Your task to perform on an android device: Do I have any events this weekend? Image 0: 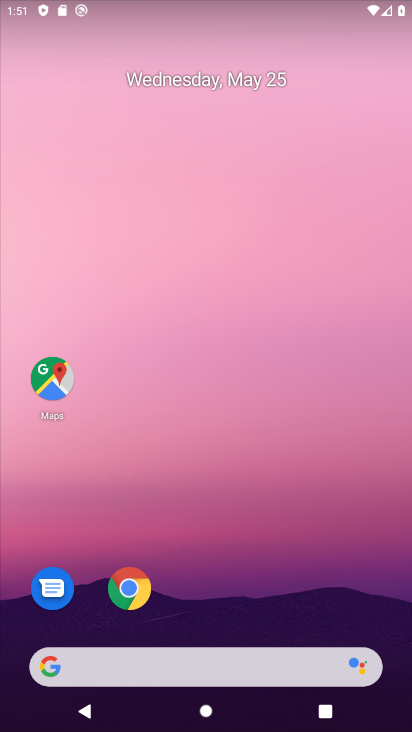
Step 0: drag from (200, 603) to (278, 205)
Your task to perform on an android device: Do I have any events this weekend? Image 1: 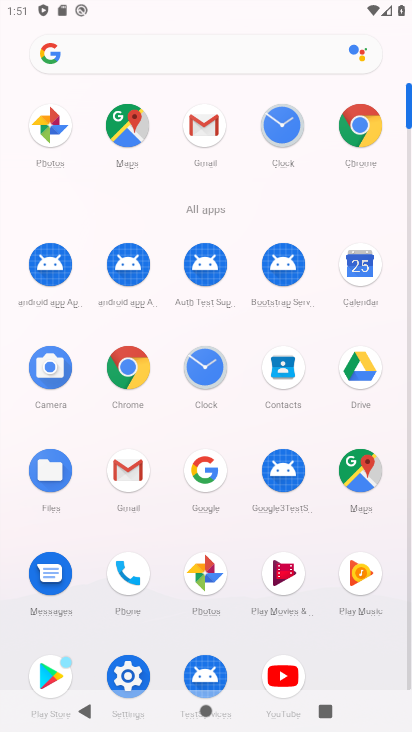
Step 1: click (364, 263)
Your task to perform on an android device: Do I have any events this weekend? Image 2: 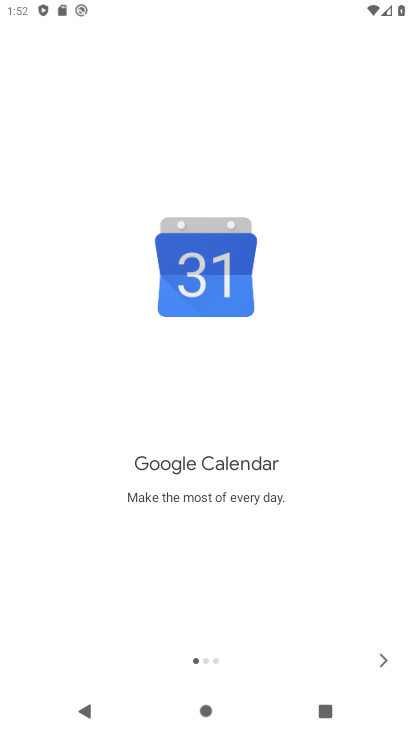
Step 2: click (386, 660)
Your task to perform on an android device: Do I have any events this weekend? Image 3: 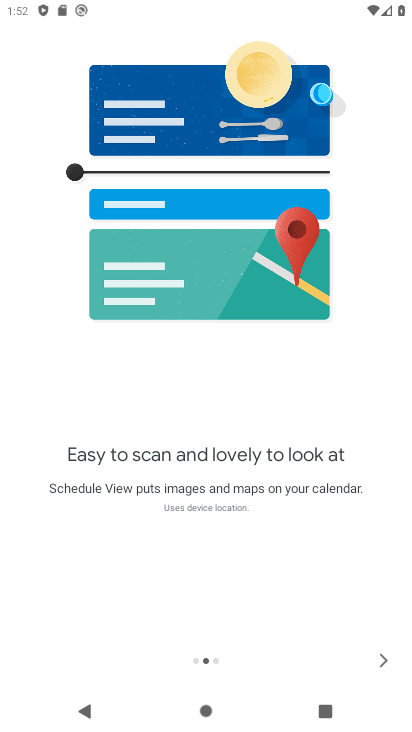
Step 3: click (386, 660)
Your task to perform on an android device: Do I have any events this weekend? Image 4: 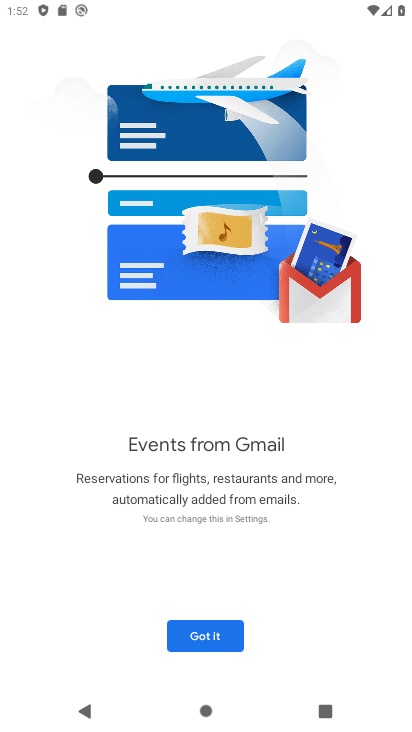
Step 4: click (221, 631)
Your task to perform on an android device: Do I have any events this weekend? Image 5: 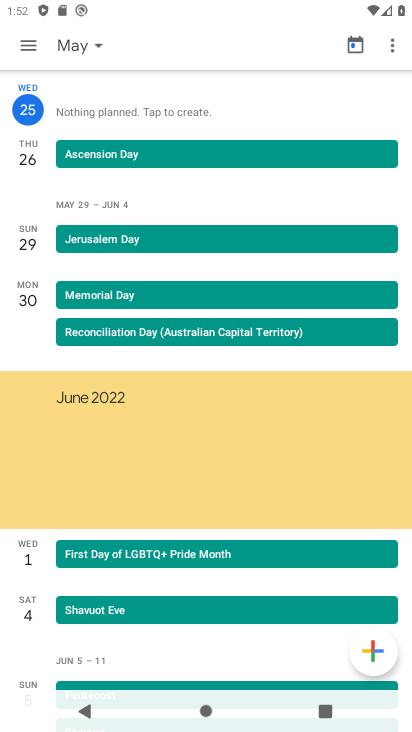
Step 5: click (93, 49)
Your task to perform on an android device: Do I have any events this weekend? Image 6: 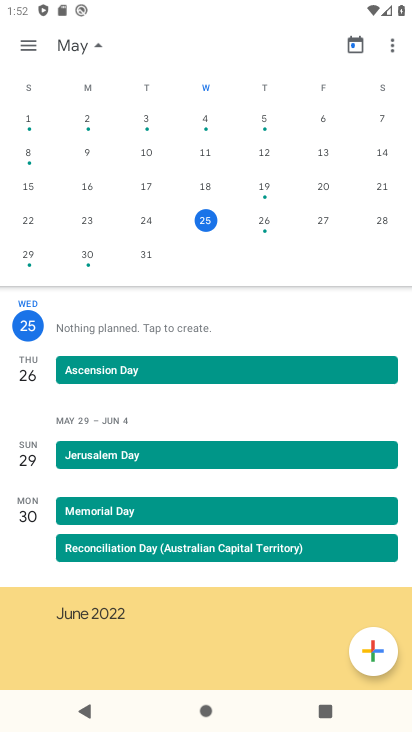
Step 6: click (376, 215)
Your task to perform on an android device: Do I have any events this weekend? Image 7: 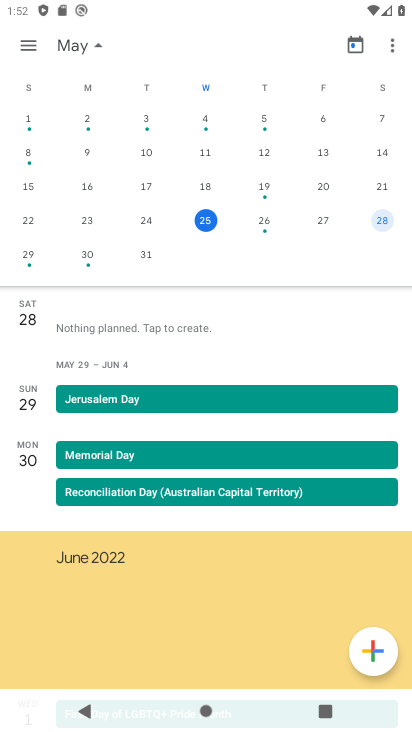
Step 7: click (30, 251)
Your task to perform on an android device: Do I have any events this weekend? Image 8: 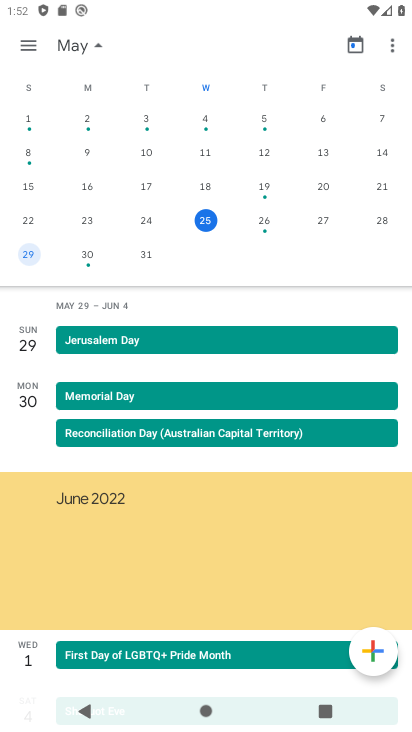
Step 8: task complete